Your task to perform on an android device: When is my next meeting? Image 0: 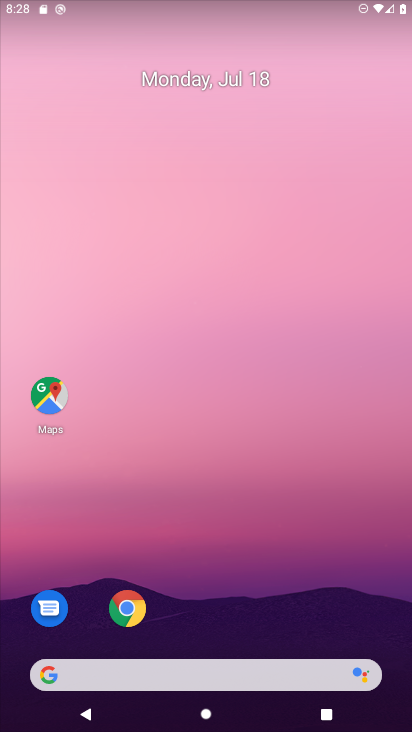
Step 0: drag from (271, 591) to (284, 62)
Your task to perform on an android device: When is my next meeting? Image 1: 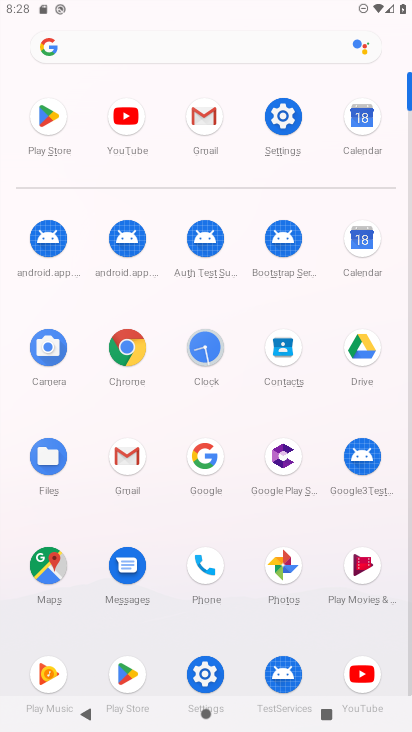
Step 1: click (360, 234)
Your task to perform on an android device: When is my next meeting? Image 2: 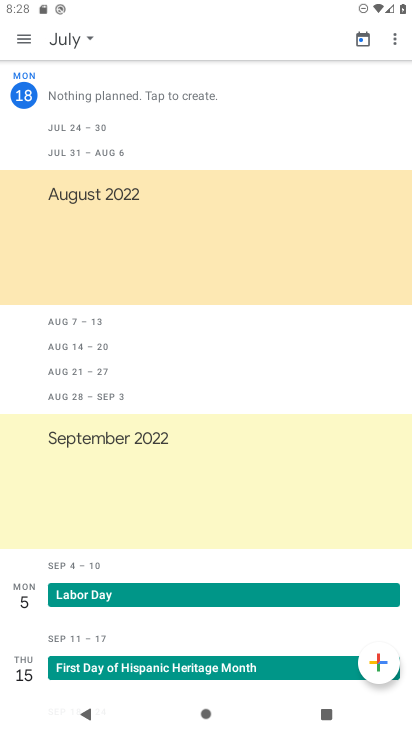
Step 2: click (79, 43)
Your task to perform on an android device: When is my next meeting? Image 3: 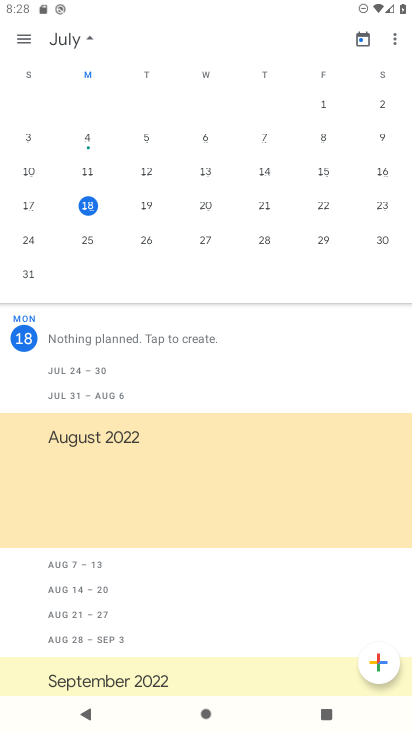
Step 3: click (89, 207)
Your task to perform on an android device: When is my next meeting? Image 4: 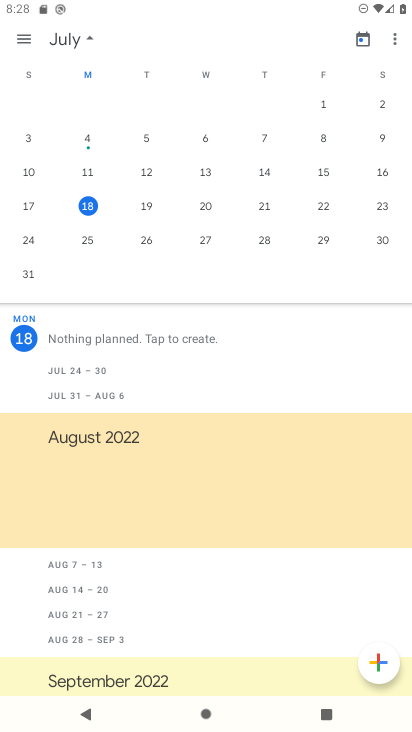
Step 4: task complete